Your task to perform on an android device: open a bookmark in the chrome app Image 0: 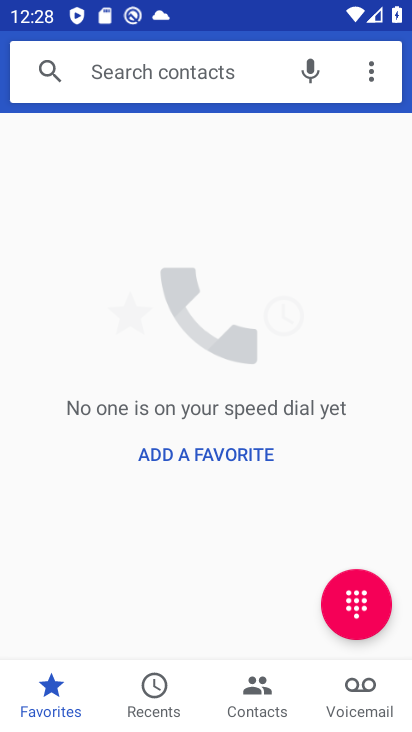
Step 0: press home button
Your task to perform on an android device: open a bookmark in the chrome app Image 1: 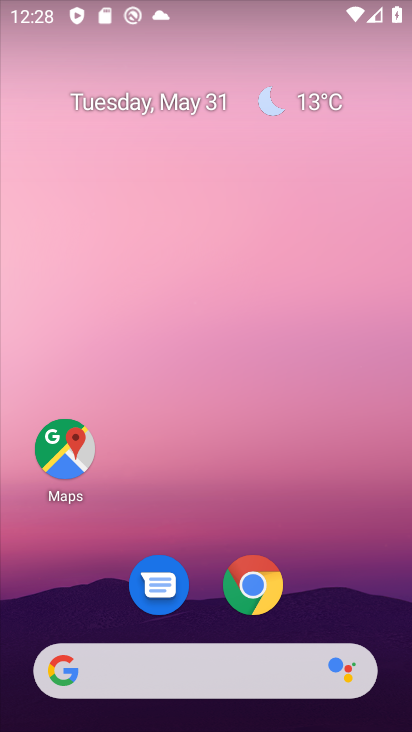
Step 1: click (266, 607)
Your task to perform on an android device: open a bookmark in the chrome app Image 2: 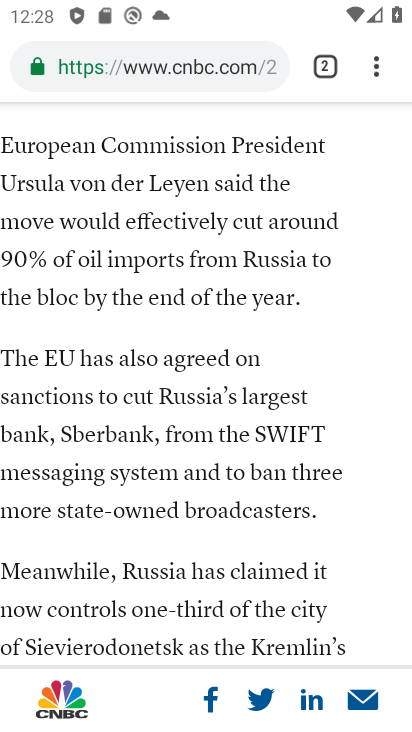
Step 2: click (371, 67)
Your task to perform on an android device: open a bookmark in the chrome app Image 3: 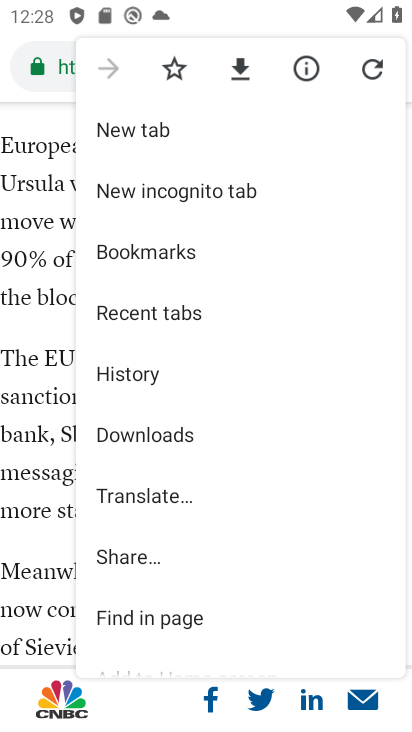
Step 3: click (233, 258)
Your task to perform on an android device: open a bookmark in the chrome app Image 4: 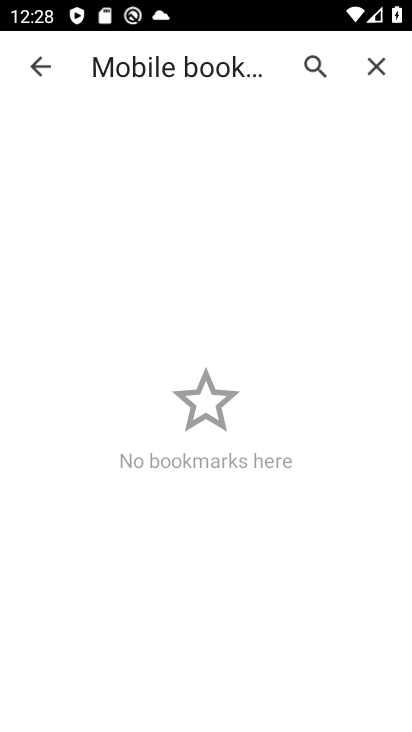
Step 4: task complete